Your task to perform on an android device: Go to internet settings Image 0: 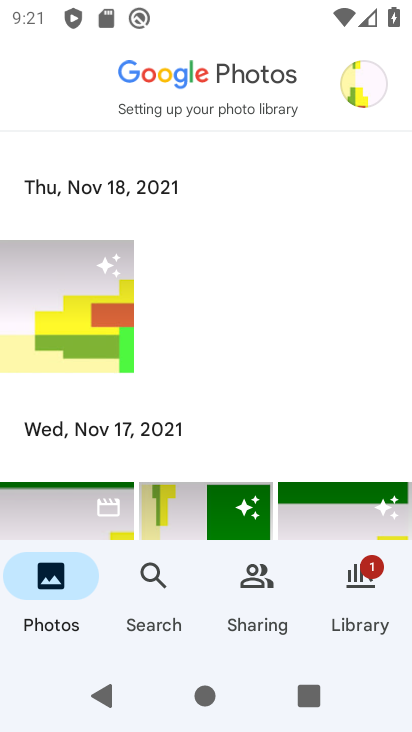
Step 0: press home button
Your task to perform on an android device: Go to internet settings Image 1: 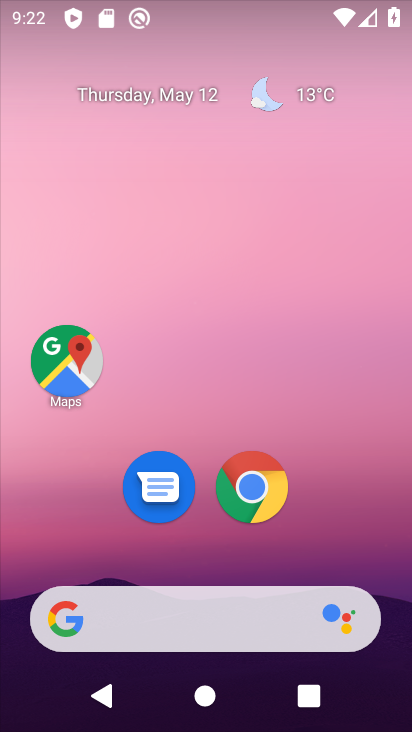
Step 1: drag from (330, 510) to (221, 2)
Your task to perform on an android device: Go to internet settings Image 2: 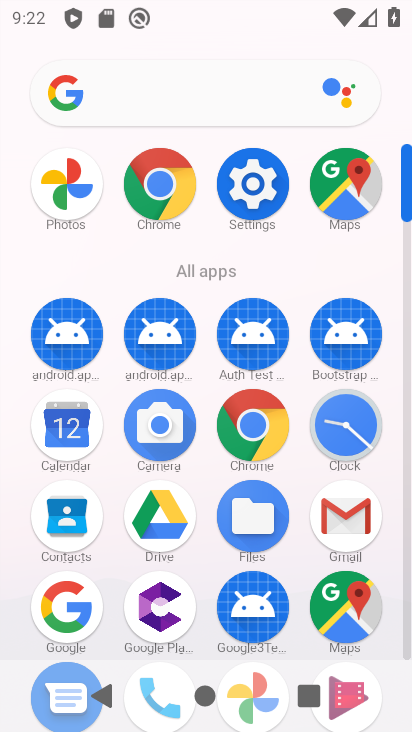
Step 2: click (247, 171)
Your task to perform on an android device: Go to internet settings Image 3: 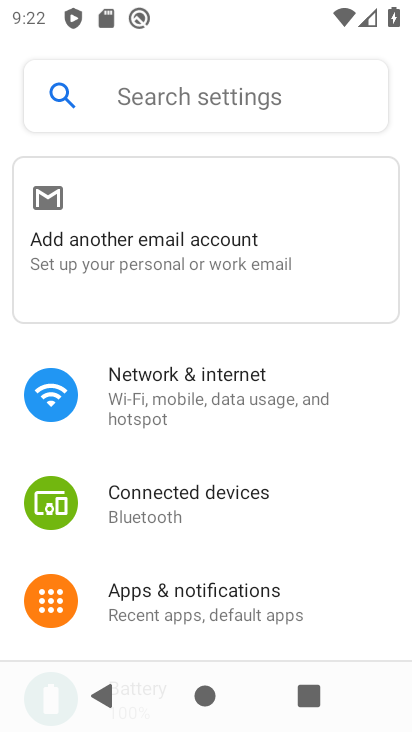
Step 3: click (219, 375)
Your task to perform on an android device: Go to internet settings Image 4: 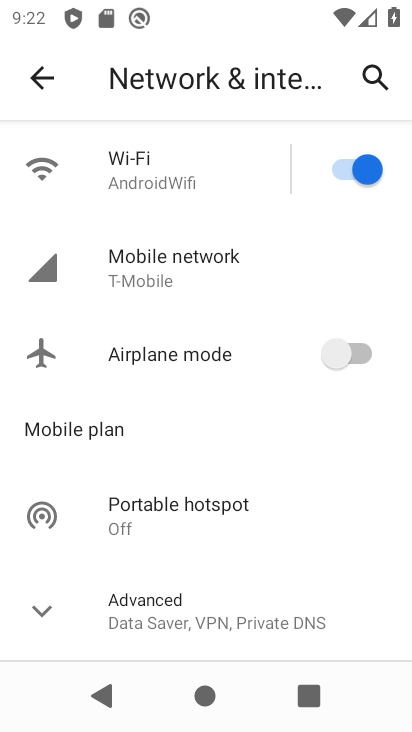
Step 4: task complete